Your task to perform on an android device: change the clock display to digital Image 0: 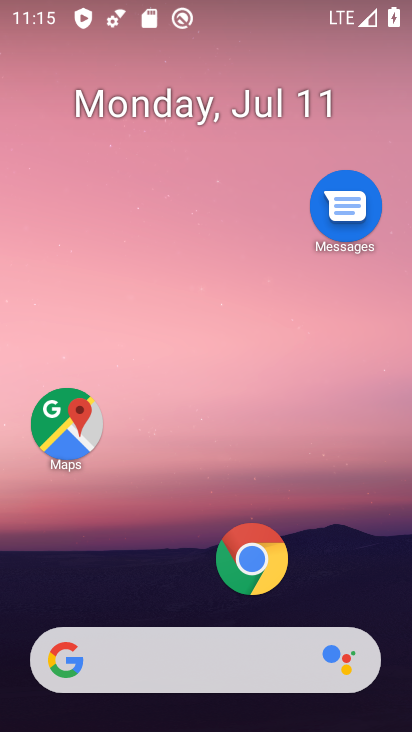
Step 0: drag from (338, 583) to (346, 184)
Your task to perform on an android device: change the clock display to digital Image 1: 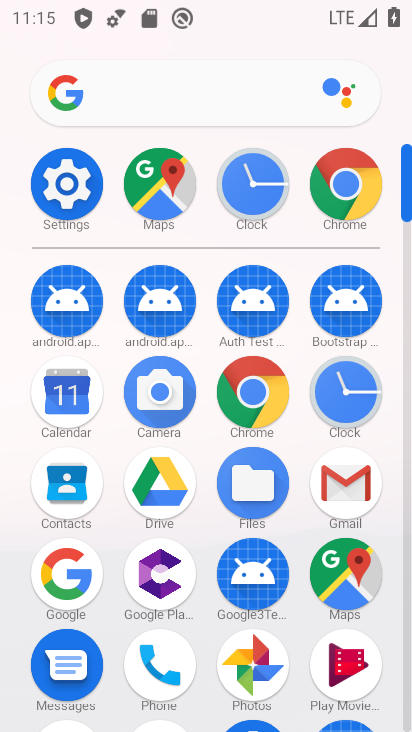
Step 1: click (339, 384)
Your task to perform on an android device: change the clock display to digital Image 2: 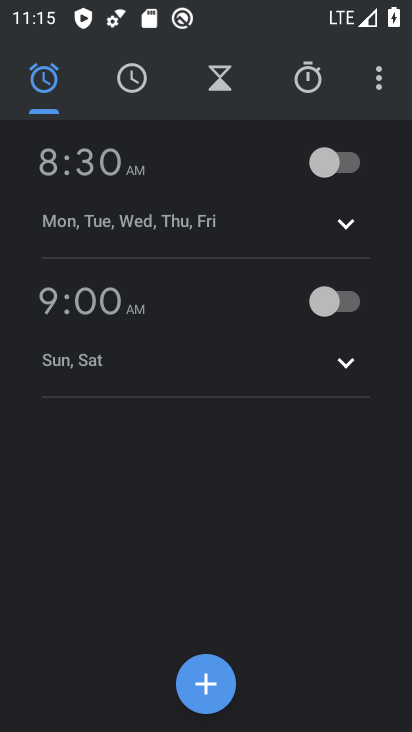
Step 2: click (381, 89)
Your task to perform on an android device: change the clock display to digital Image 3: 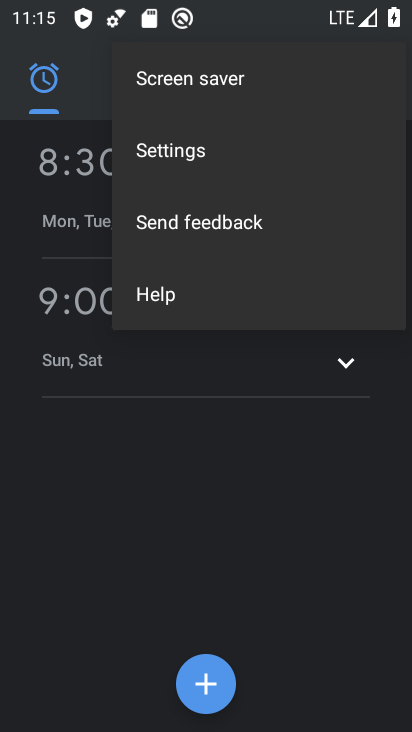
Step 3: click (218, 160)
Your task to perform on an android device: change the clock display to digital Image 4: 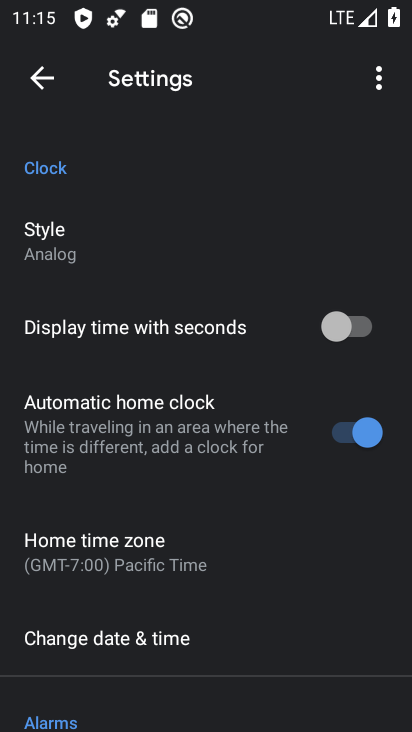
Step 4: click (70, 263)
Your task to perform on an android device: change the clock display to digital Image 5: 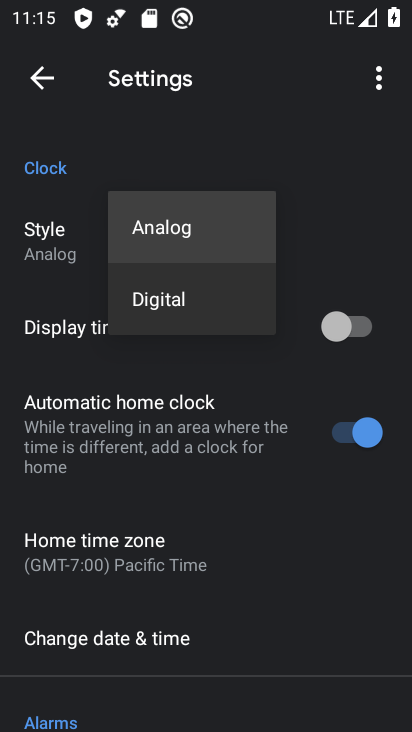
Step 5: click (163, 297)
Your task to perform on an android device: change the clock display to digital Image 6: 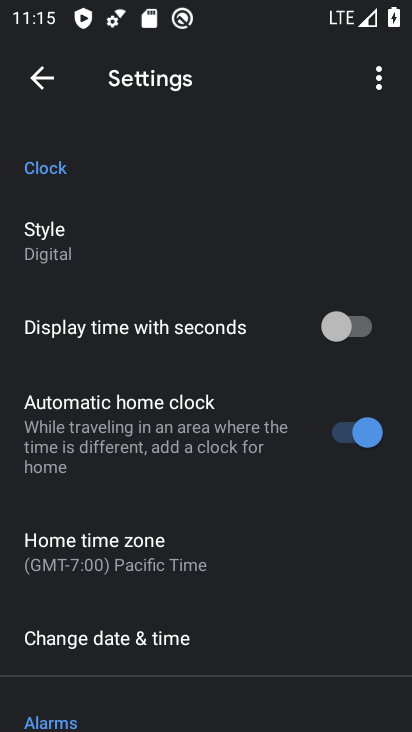
Step 6: task complete